Your task to perform on an android device: toggle data saver in the chrome app Image 0: 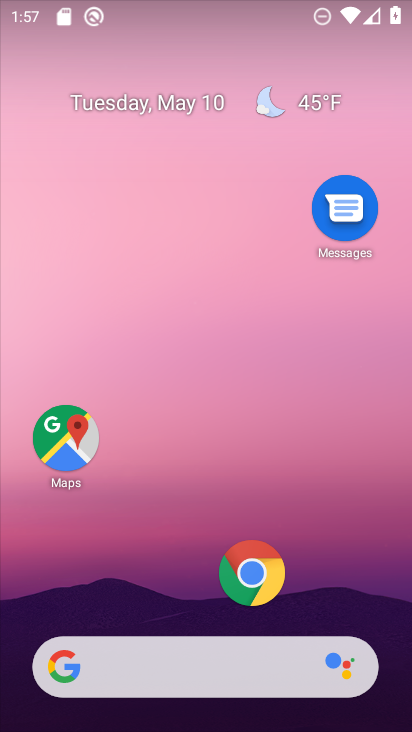
Step 0: click (256, 265)
Your task to perform on an android device: toggle data saver in the chrome app Image 1: 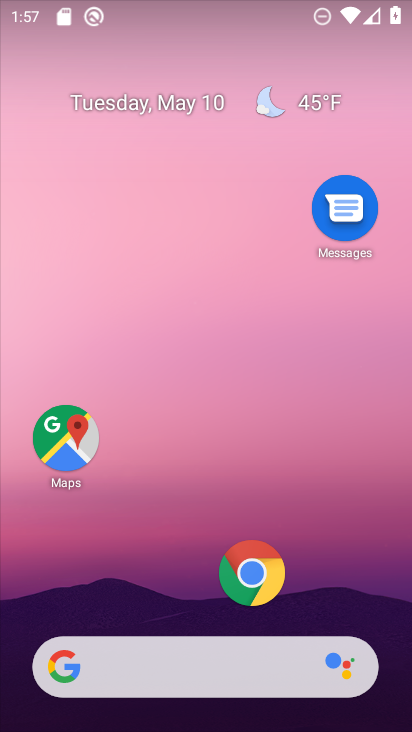
Step 1: drag from (193, 587) to (248, 255)
Your task to perform on an android device: toggle data saver in the chrome app Image 2: 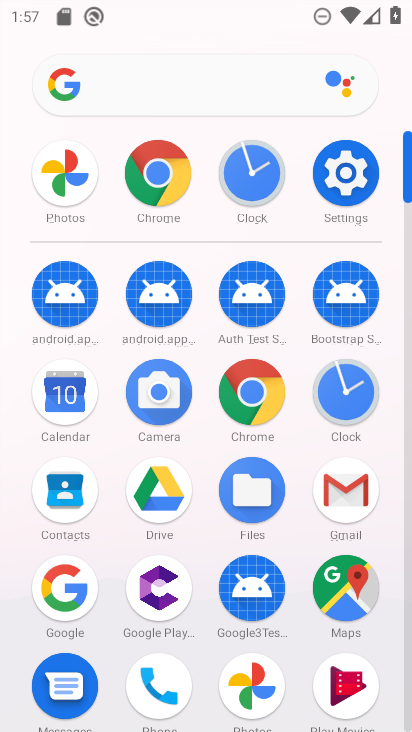
Step 2: click (249, 396)
Your task to perform on an android device: toggle data saver in the chrome app Image 3: 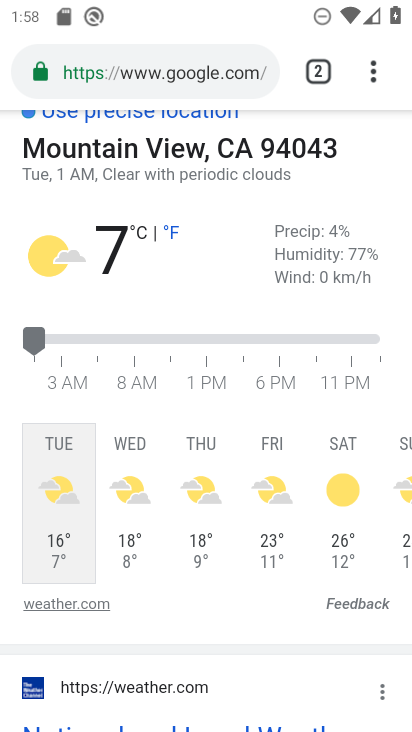
Step 3: drag from (188, 618) to (232, 303)
Your task to perform on an android device: toggle data saver in the chrome app Image 4: 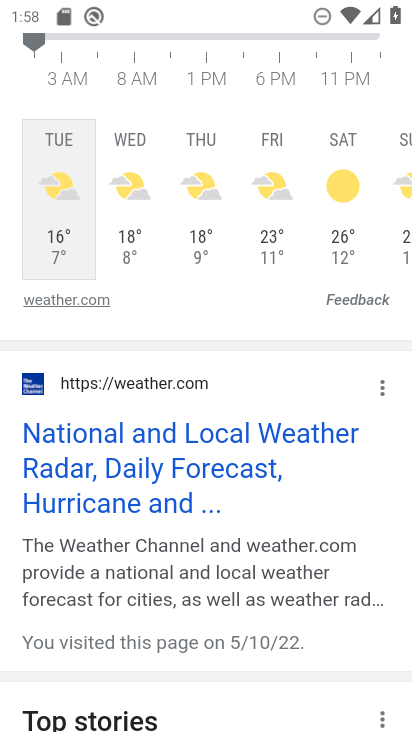
Step 4: drag from (344, 124) to (330, 564)
Your task to perform on an android device: toggle data saver in the chrome app Image 5: 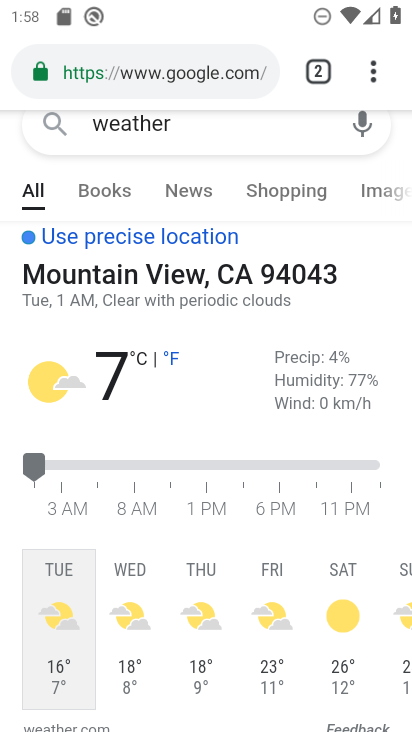
Step 5: drag from (376, 76) to (134, 564)
Your task to perform on an android device: toggle data saver in the chrome app Image 6: 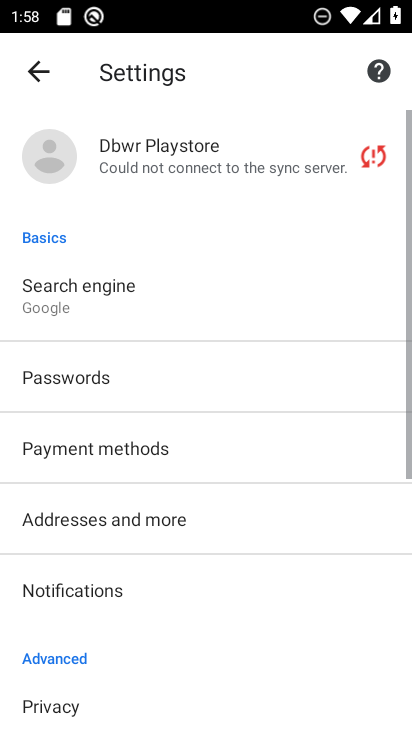
Step 6: drag from (197, 628) to (263, 250)
Your task to perform on an android device: toggle data saver in the chrome app Image 7: 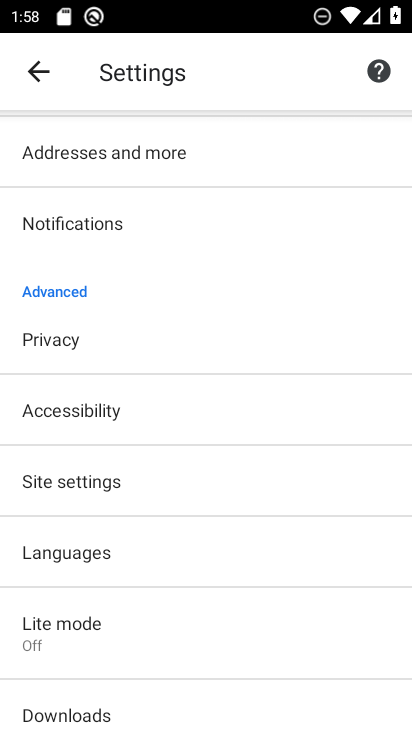
Step 7: click (87, 645)
Your task to perform on an android device: toggle data saver in the chrome app Image 8: 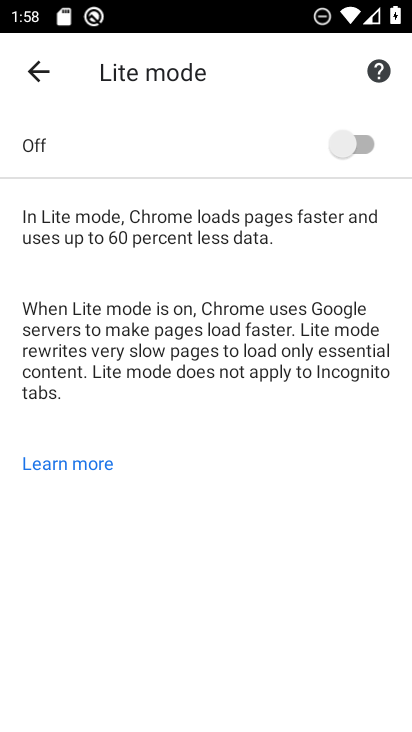
Step 8: click (346, 145)
Your task to perform on an android device: toggle data saver in the chrome app Image 9: 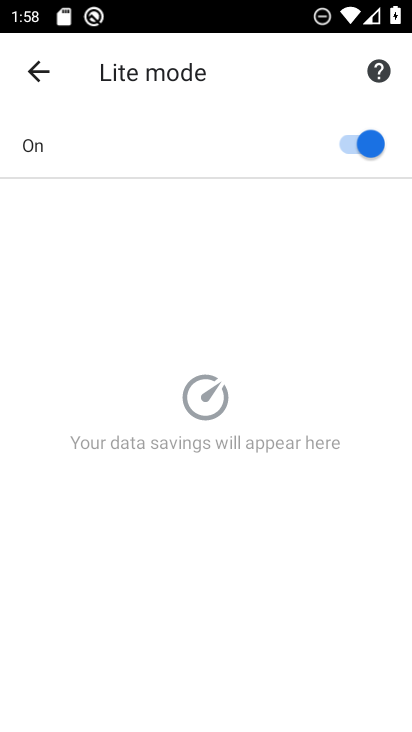
Step 9: task complete